Your task to perform on an android device: delete browsing data in the chrome app Image 0: 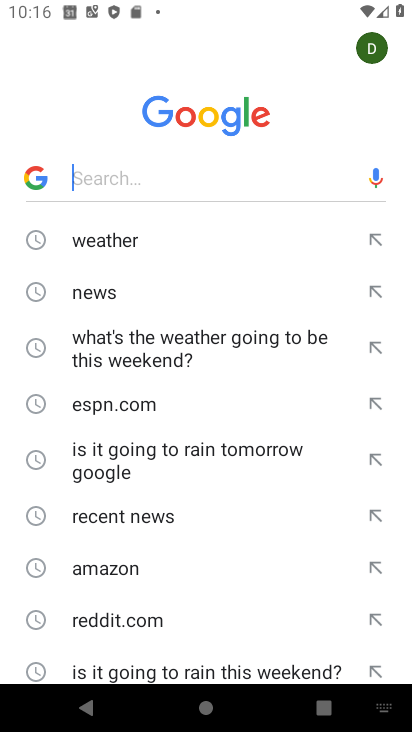
Step 0: press home button
Your task to perform on an android device: delete browsing data in the chrome app Image 1: 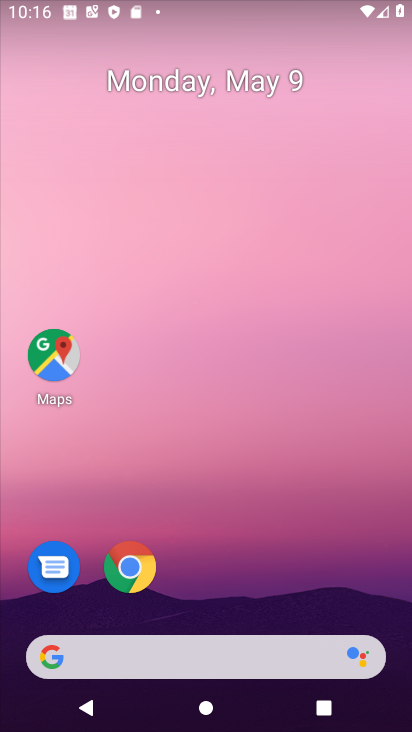
Step 1: click (144, 577)
Your task to perform on an android device: delete browsing data in the chrome app Image 2: 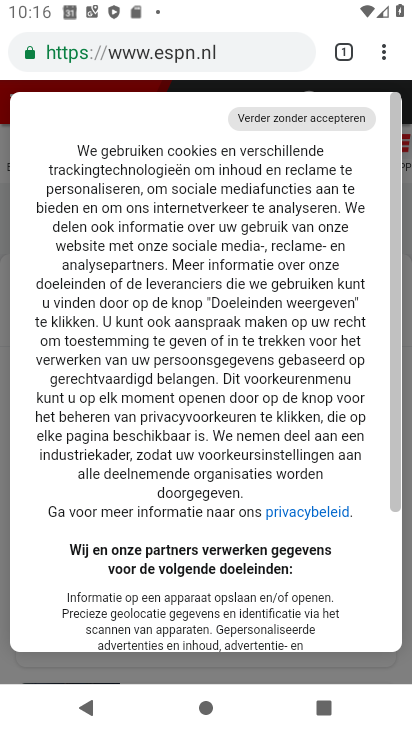
Step 2: drag from (392, 58) to (202, 293)
Your task to perform on an android device: delete browsing data in the chrome app Image 3: 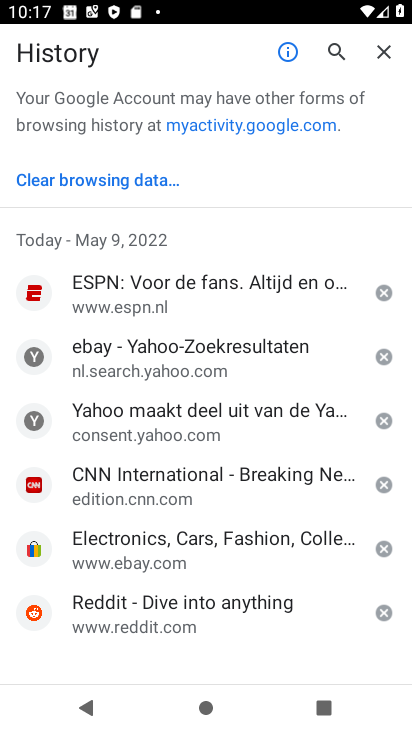
Step 3: click (105, 175)
Your task to perform on an android device: delete browsing data in the chrome app Image 4: 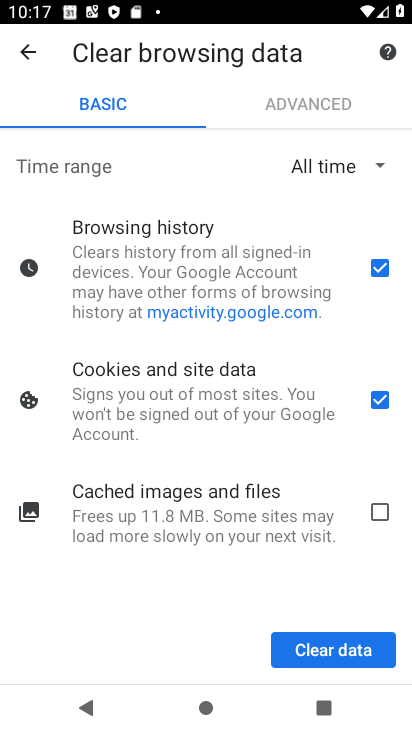
Step 4: click (315, 653)
Your task to perform on an android device: delete browsing data in the chrome app Image 5: 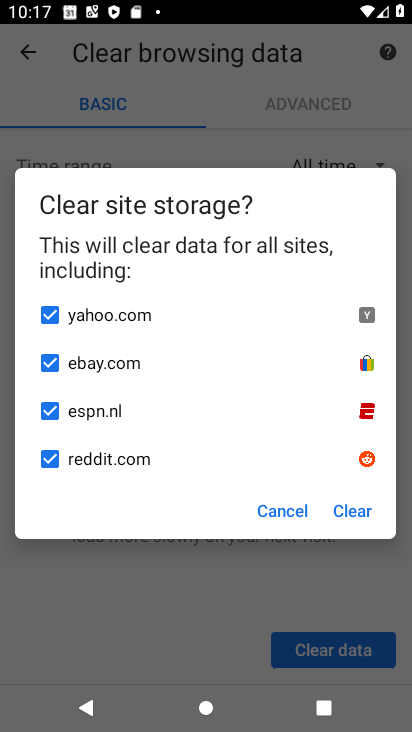
Step 5: click (343, 517)
Your task to perform on an android device: delete browsing data in the chrome app Image 6: 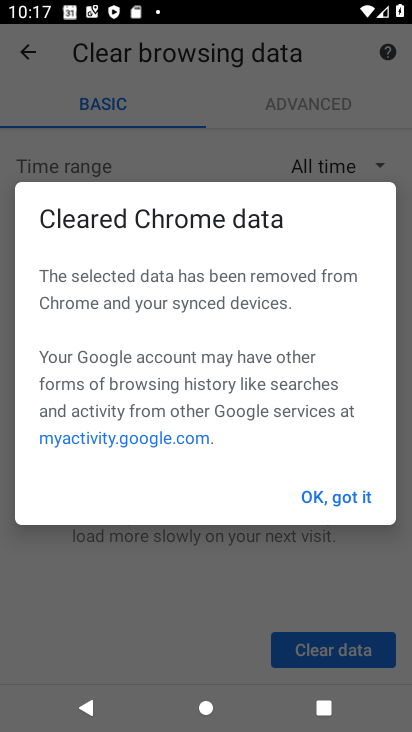
Step 6: click (339, 504)
Your task to perform on an android device: delete browsing data in the chrome app Image 7: 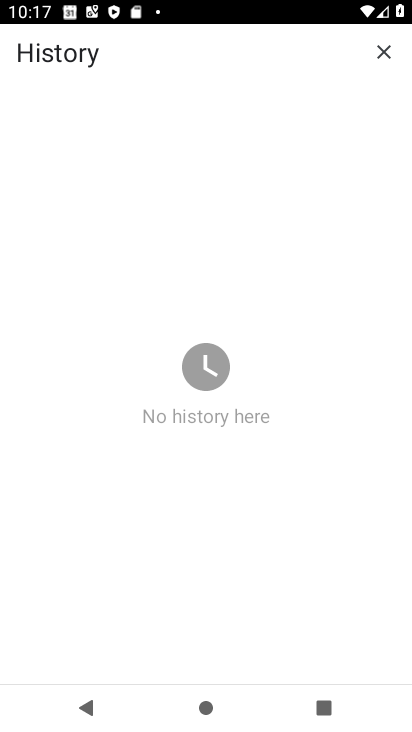
Step 7: task complete